Your task to perform on an android device: turn off improve location accuracy Image 0: 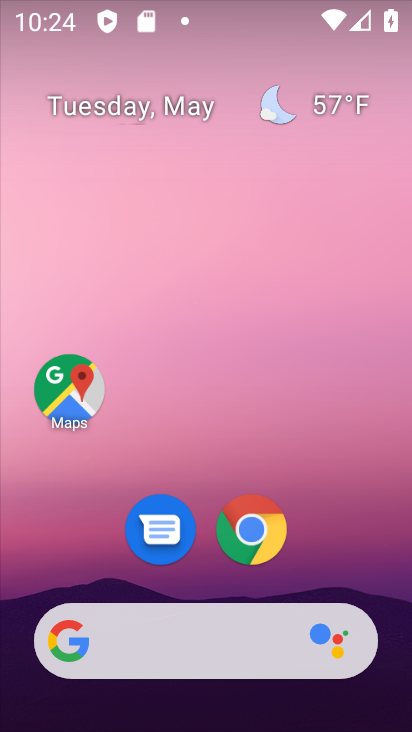
Step 0: drag from (213, 573) to (145, 153)
Your task to perform on an android device: turn off improve location accuracy Image 1: 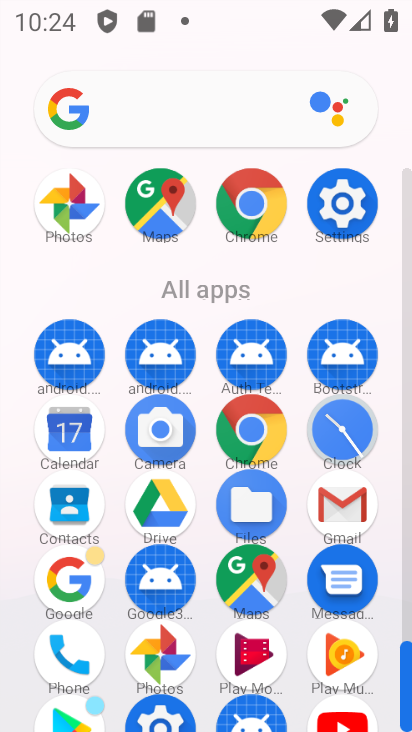
Step 1: click (328, 225)
Your task to perform on an android device: turn off improve location accuracy Image 2: 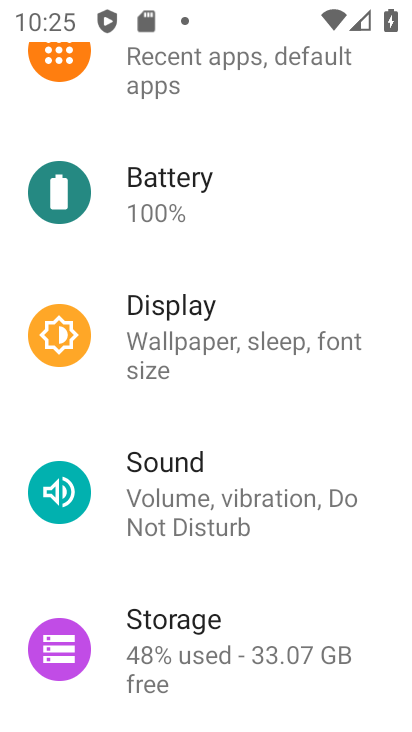
Step 2: drag from (135, 670) to (257, 156)
Your task to perform on an android device: turn off improve location accuracy Image 3: 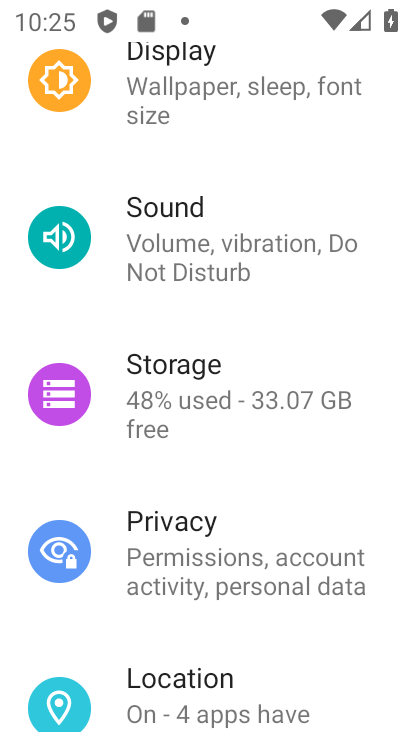
Step 3: click (192, 690)
Your task to perform on an android device: turn off improve location accuracy Image 4: 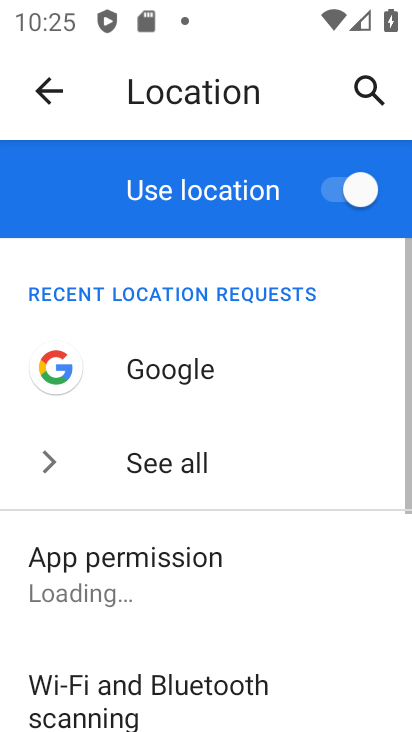
Step 4: drag from (192, 690) to (225, 205)
Your task to perform on an android device: turn off improve location accuracy Image 5: 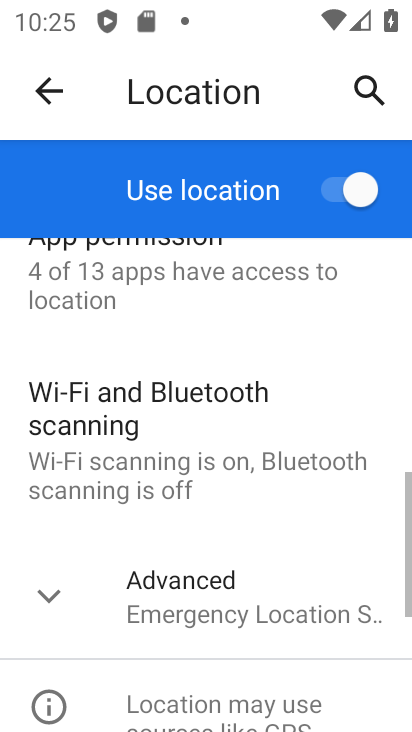
Step 5: click (134, 612)
Your task to perform on an android device: turn off improve location accuracy Image 6: 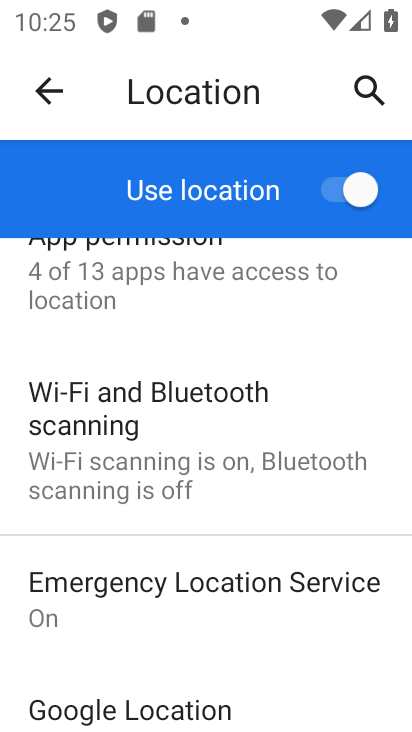
Step 6: drag from (210, 649) to (237, 265)
Your task to perform on an android device: turn off improve location accuracy Image 7: 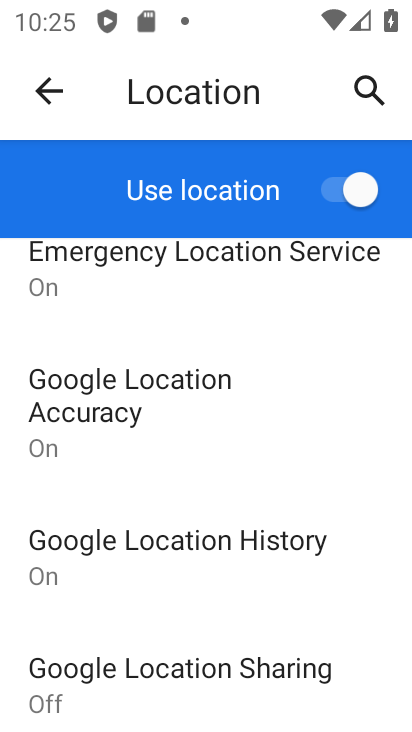
Step 7: drag from (188, 706) to (222, 492)
Your task to perform on an android device: turn off improve location accuracy Image 8: 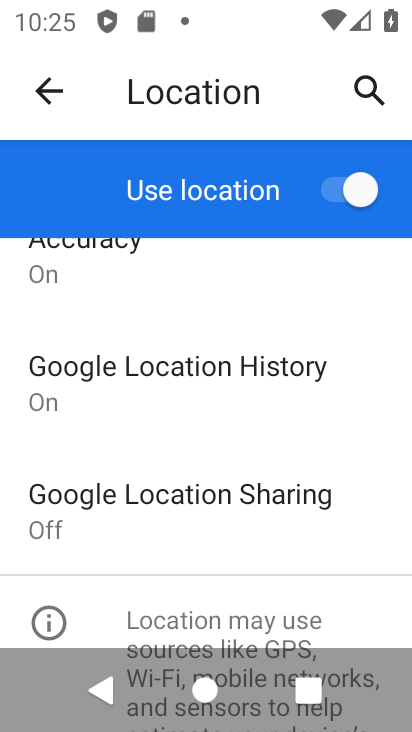
Step 8: click (91, 253)
Your task to perform on an android device: turn off improve location accuracy Image 9: 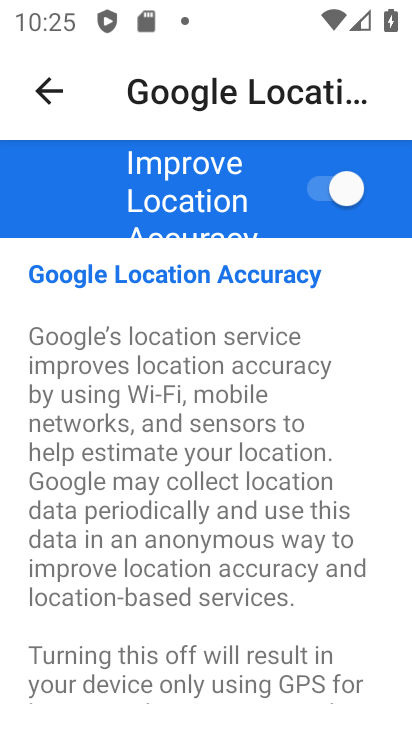
Step 9: click (326, 186)
Your task to perform on an android device: turn off improve location accuracy Image 10: 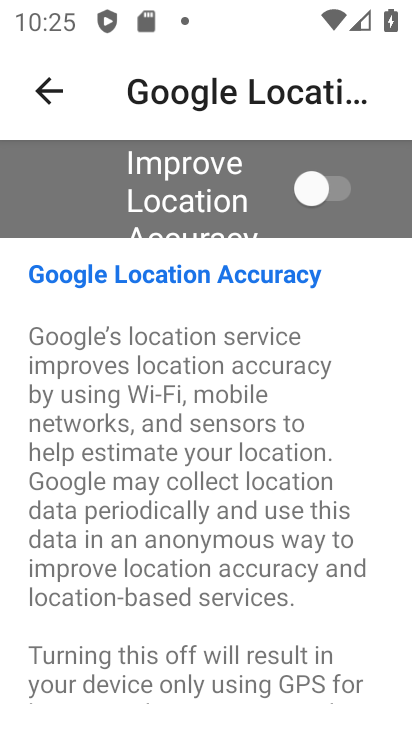
Step 10: task complete